Your task to perform on an android device: Search for seafood restaurants on Google Maps Image 0: 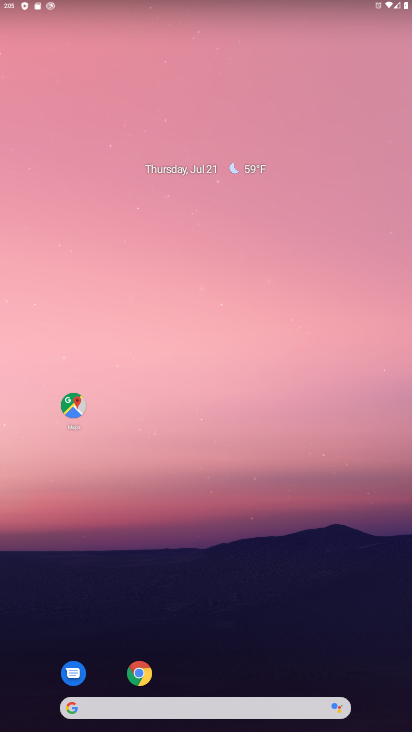
Step 0: click (74, 409)
Your task to perform on an android device: Search for seafood restaurants on Google Maps Image 1: 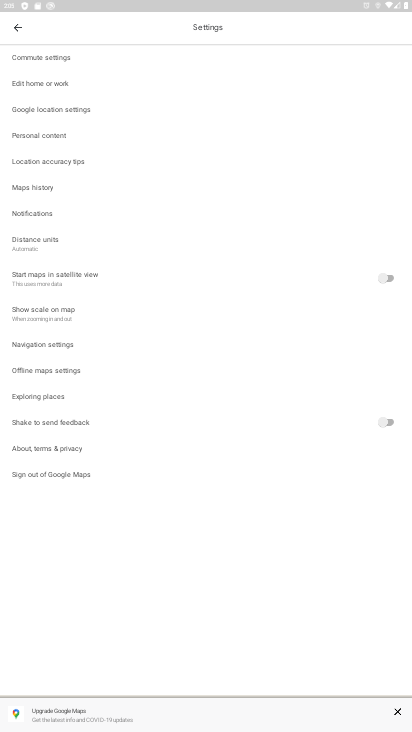
Step 1: press back button
Your task to perform on an android device: Search for seafood restaurants on Google Maps Image 2: 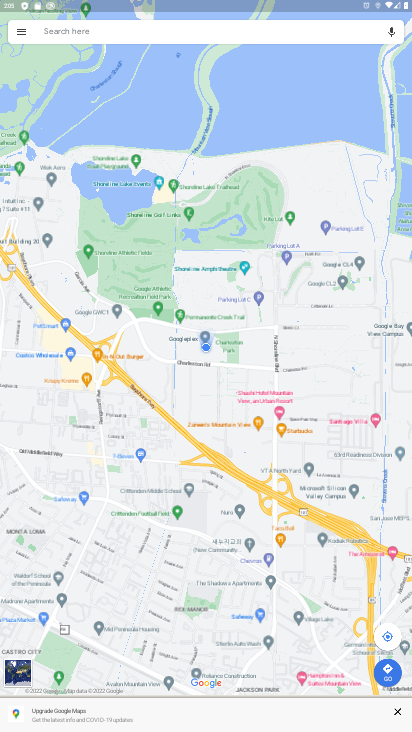
Step 2: click (89, 35)
Your task to perform on an android device: Search for seafood restaurants on Google Maps Image 3: 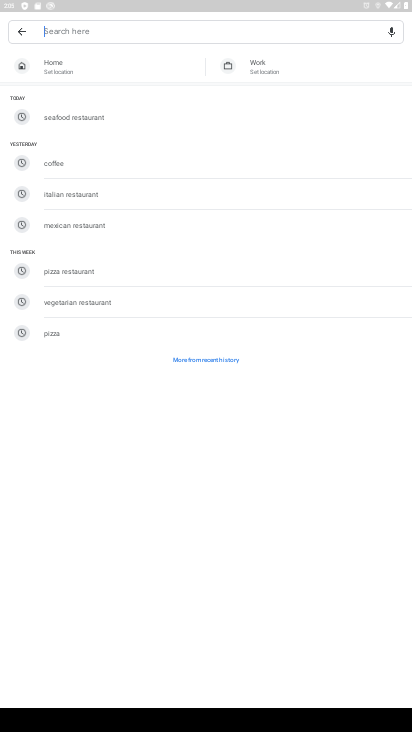
Step 3: type "seafood restaurants"
Your task to perform on an android device: Search for seafood restaurants on Google Maps Image 4: 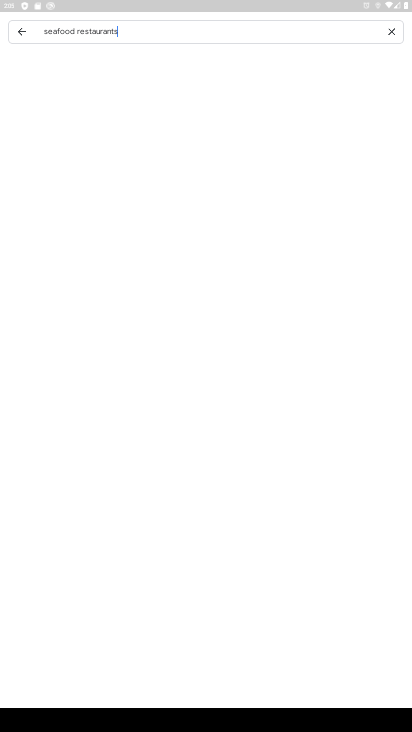
Step 4: type ""
Your task to perform on an android device: Search for seafood restaurants on Google Maps Image 5: 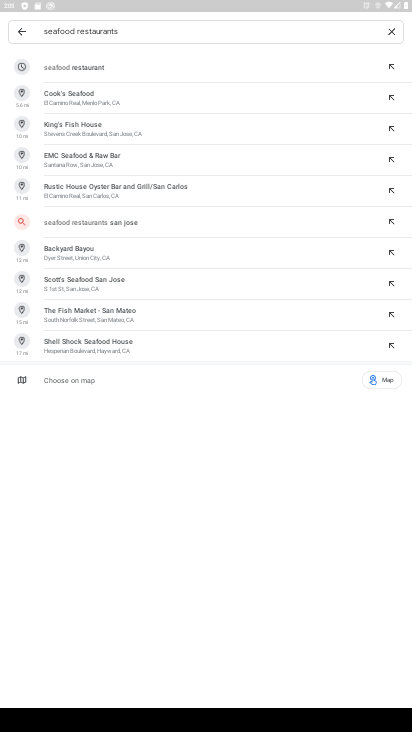
Step 5: click (73, 71)
Your task to perform on an android device: Search for seafood restaurants on Google Maps Image 6: 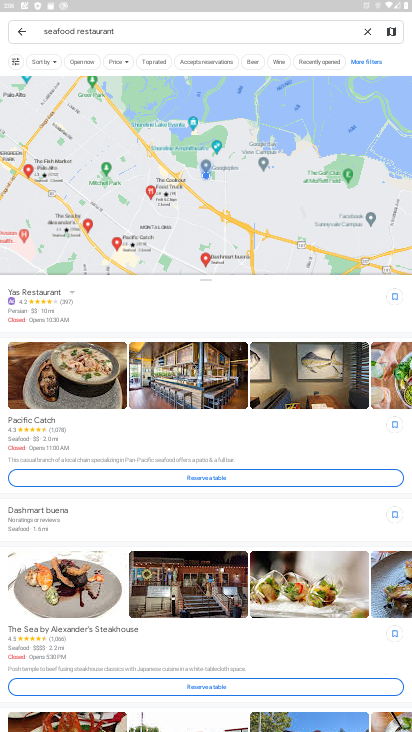
Step 6: task complete